Your task to perform on an android device: Open sound settings Image 0: 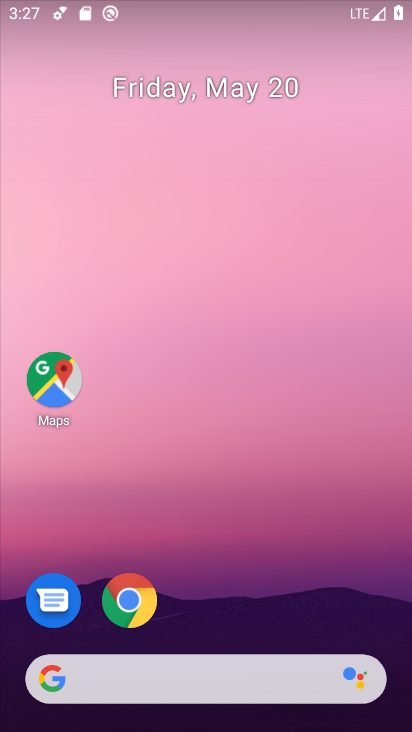
Step 0: drag from (378, 595) to (350, 285)
Your task to perform on an android device: Open sound settings Image 1: 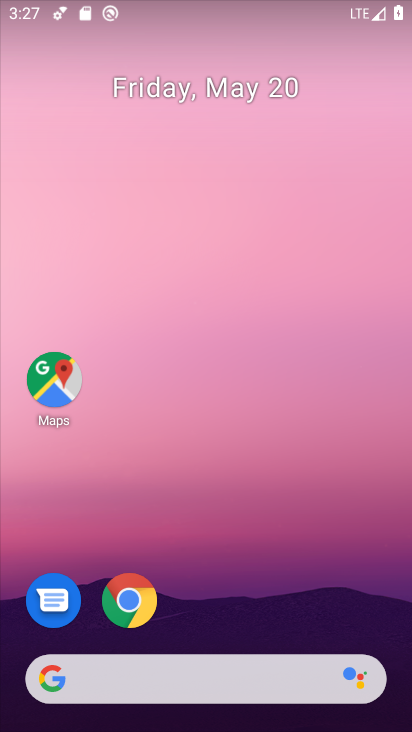
Step 1: drag from (387, 604) to (364, 213)
Your task to perform on an android device: Open sound settings Image 2: 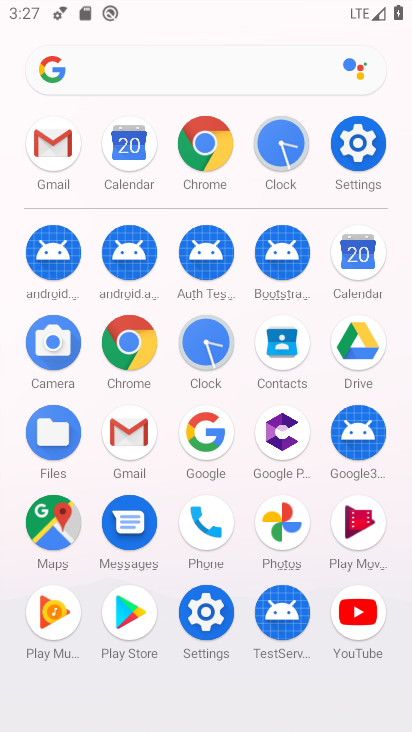
Step 2: click (196, 627)
Your task to perform on an android device: Open sound settings Image 3: 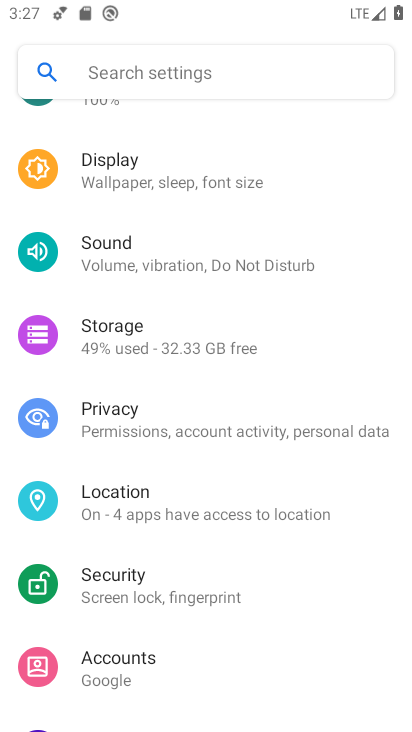
Step 3: drag from (291, 606) to (305, 483)
Your task to perform on an android device: Open sound settings Image 4: 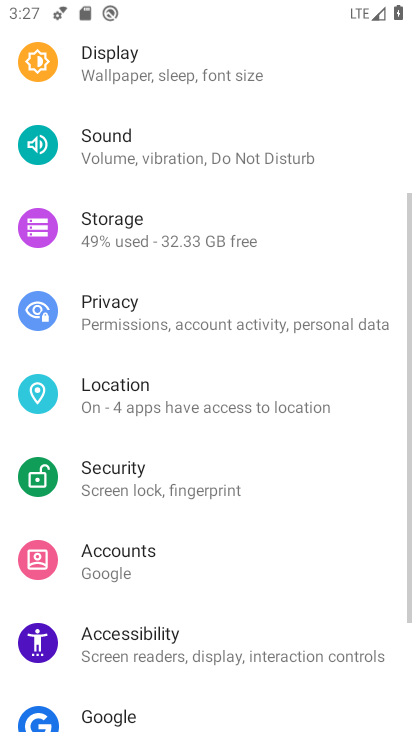
Step 4: drag from (304, 630) to (301, 513)
Your task to perform on an android device: Open sound settings Image 5: 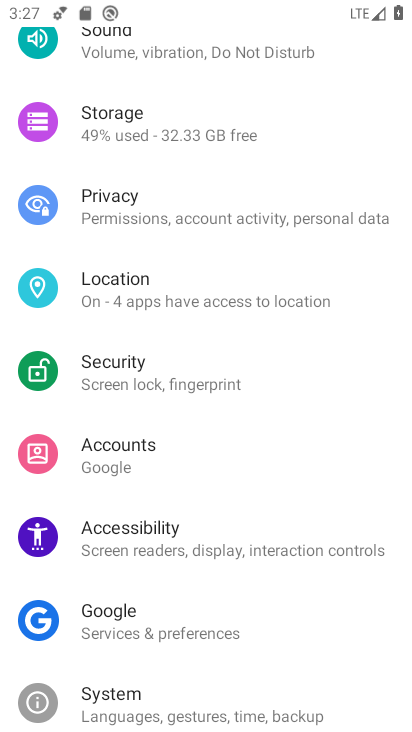
Step 5: drag from (306, 665) to (306, 560)
Your task to perform on an android device: Open sound settings Image 6: 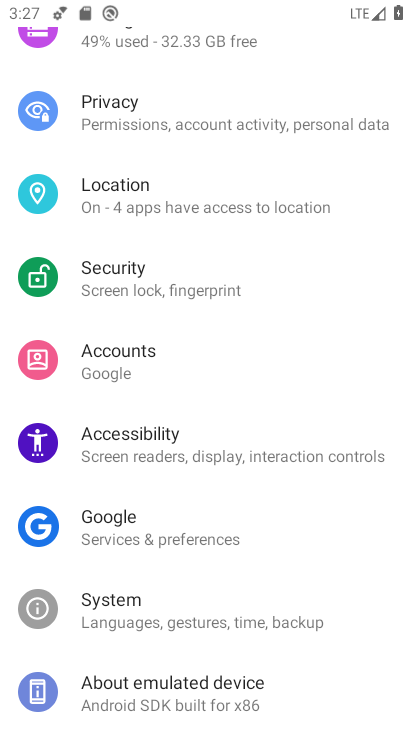
Step 6: drag from (357, 692) to (352, 538)
Your task to perform on an android device: Open sound settings Image 7: 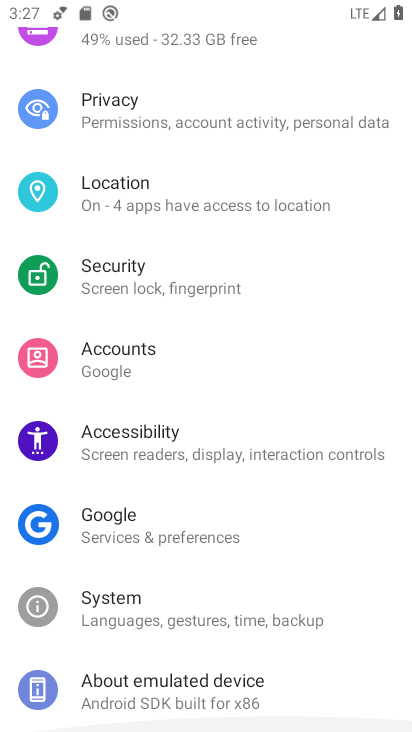
Step 7: drag from (352, 513) to (343, 604)
Your task to perform on an android device: Open sound settings Image 8: 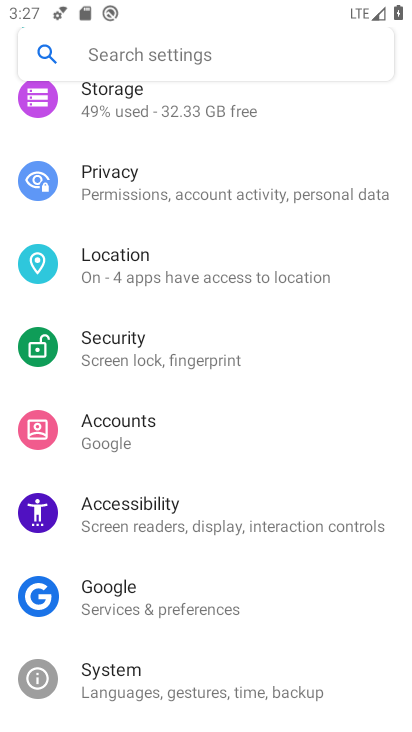
Step 8: drag from (334, 421) to (335, 553)
Your task to perform on an android device: Open sound settings Image 9: 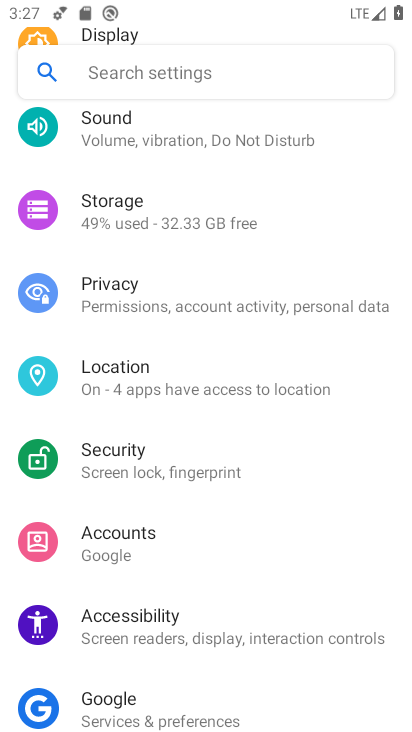
Step 9: drag from (324, 440) to (331, 535)
Your task to perform on an android device: Open sound settings Image 10: 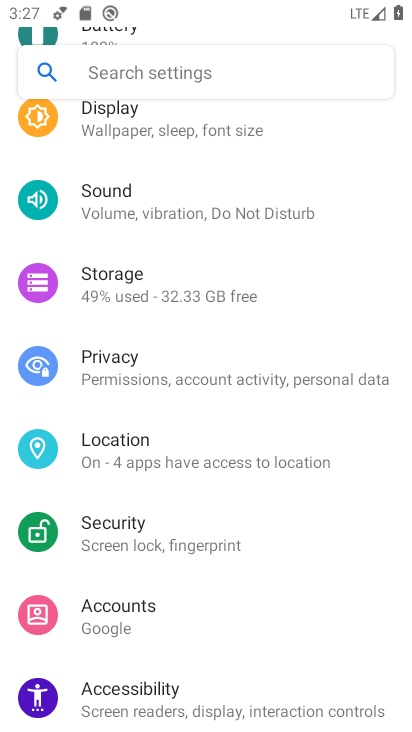
Step 10: drag from (319, 364) to (318, 474)
Your task to perform on an android device: Open sound settings Image 11: 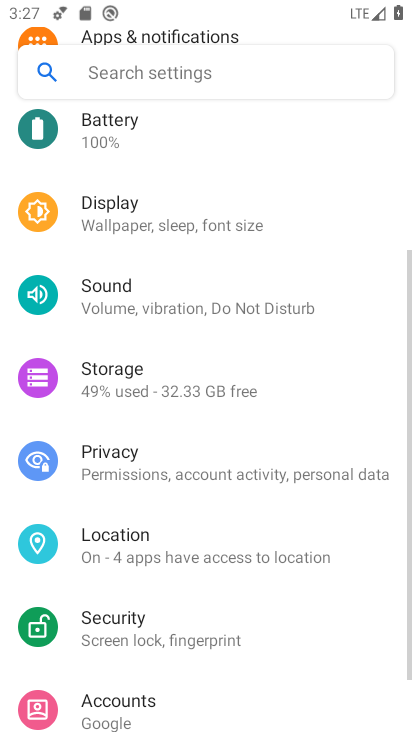
Step 11: drag from (308, 378) to (312, 460)
Your task to perform on an android device: Open sound settings Image 12: 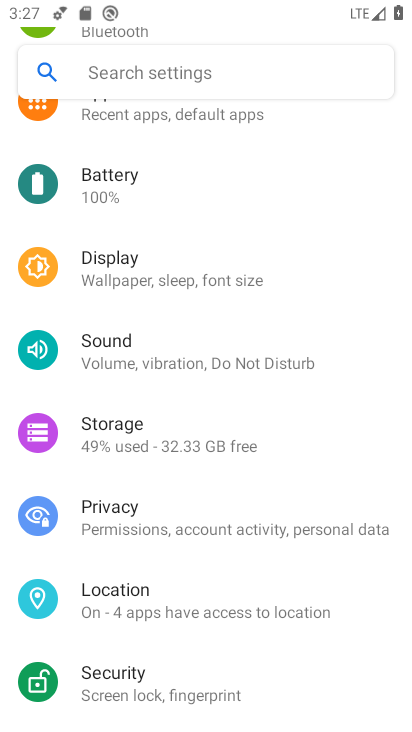
Step 12: drag from (320, 366) to (322, 446)
Your task to perform on an android device: Open sound settings Image 13: 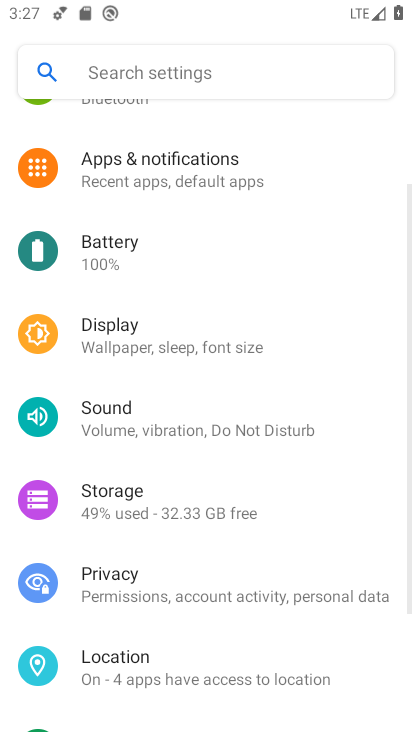
Step 13: drag from (312, 349) to (312, 461)
Your task to perform on an android device: Open sound settings Image 14: 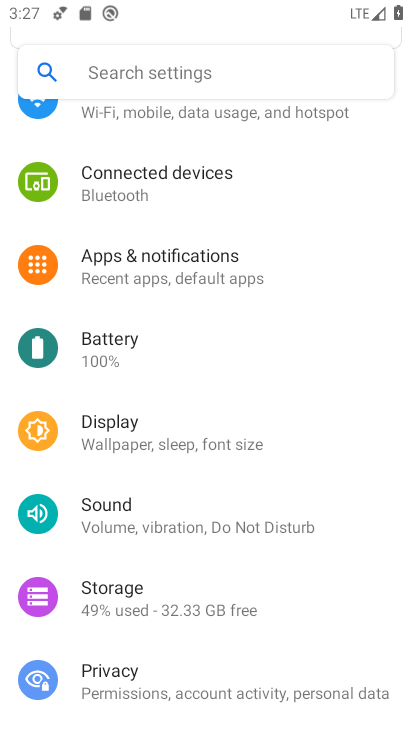
Step 14: drag from (315, 363) to (304, 450)
Your task to perform on an android device: Open sound settings Image 15: 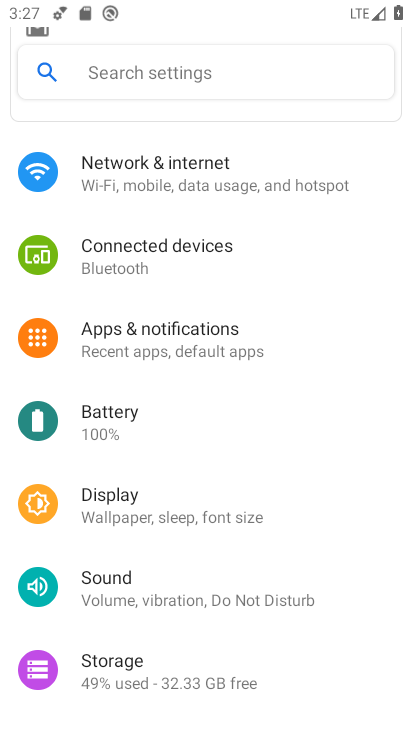
Step 15: drag from (298, 349) to (303, 437)
Your task to perform on an android device: Open sound settings Image 16: 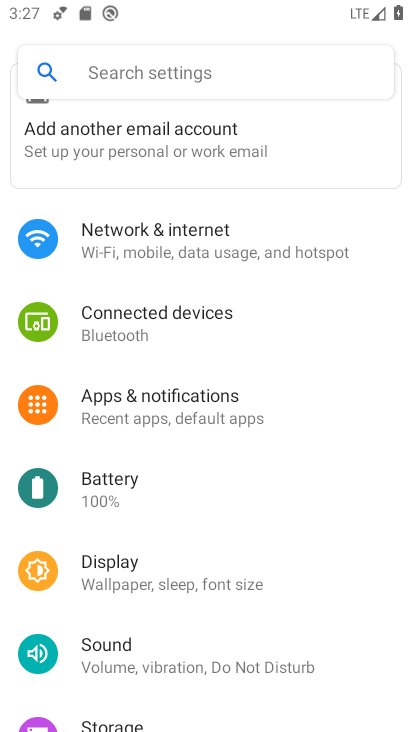
Step 16: drag from (298, 356) to (305, 435)
Your task to perform on an android device: Open sound settings Image 17: 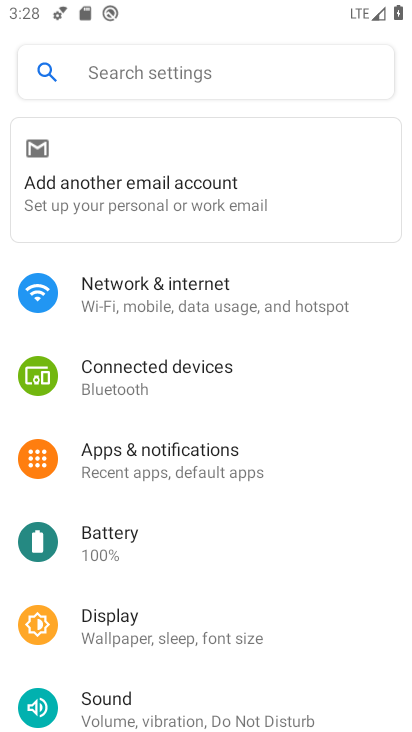
Step 17: drag from (302, 373) to (304, 455)
Your task to perform on an android device: Open sound settings Image 18: 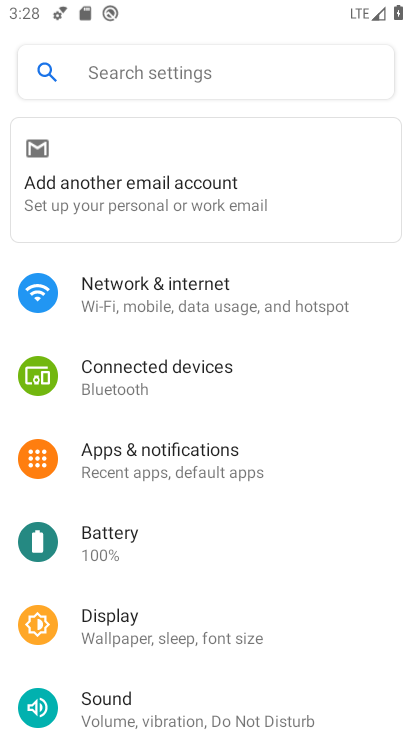
Step 18: drag from (255, 548) to (254, 438)
Your task to perform on an android device: Open sound settings Image 19: 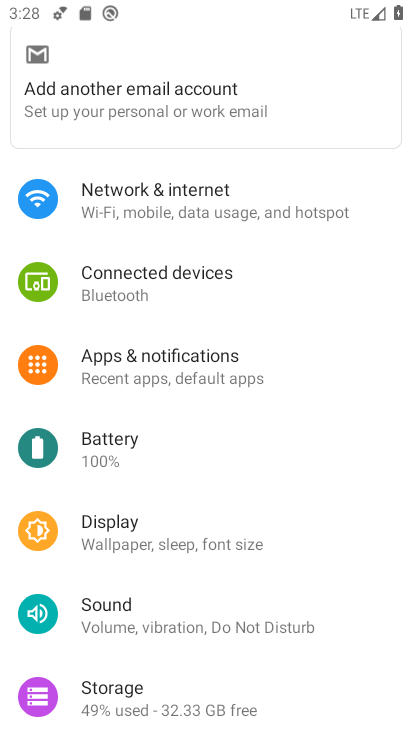
Step 19: click (275, 630)
Your task to perform on an android device: Open sound settings Image 20: 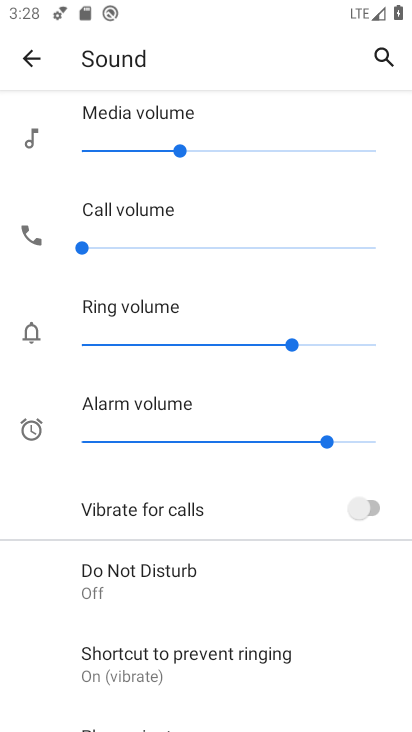
Step 20: task complete